Your task to perform on an android device: find snoozed emails in the gmail app Image 0: 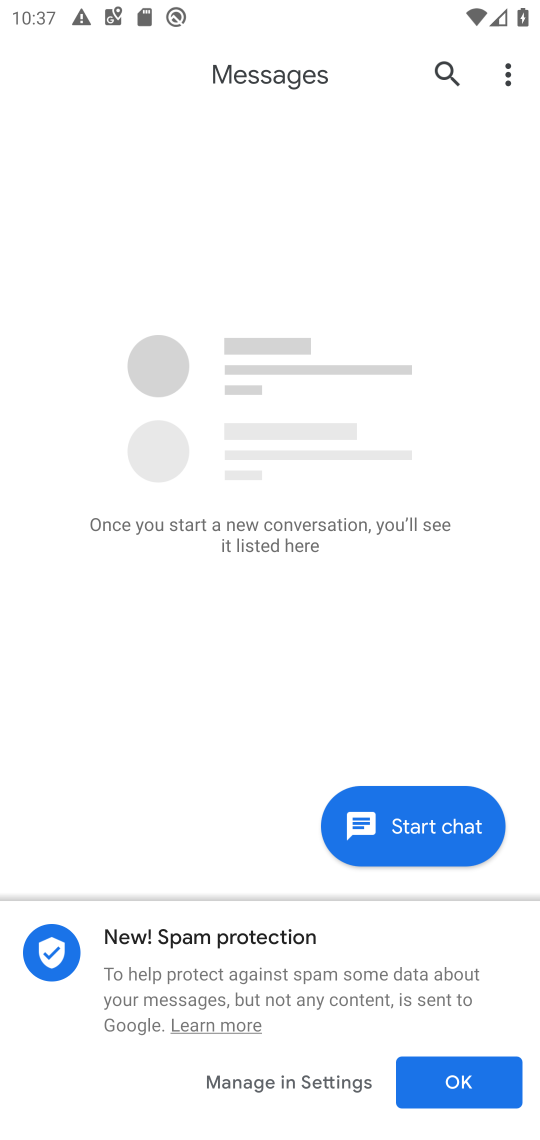
Step 0: drag from (231, 1016) to (245, 546)
Your task to perform on an android device: find snoozed emails in the gmail app Image 1: 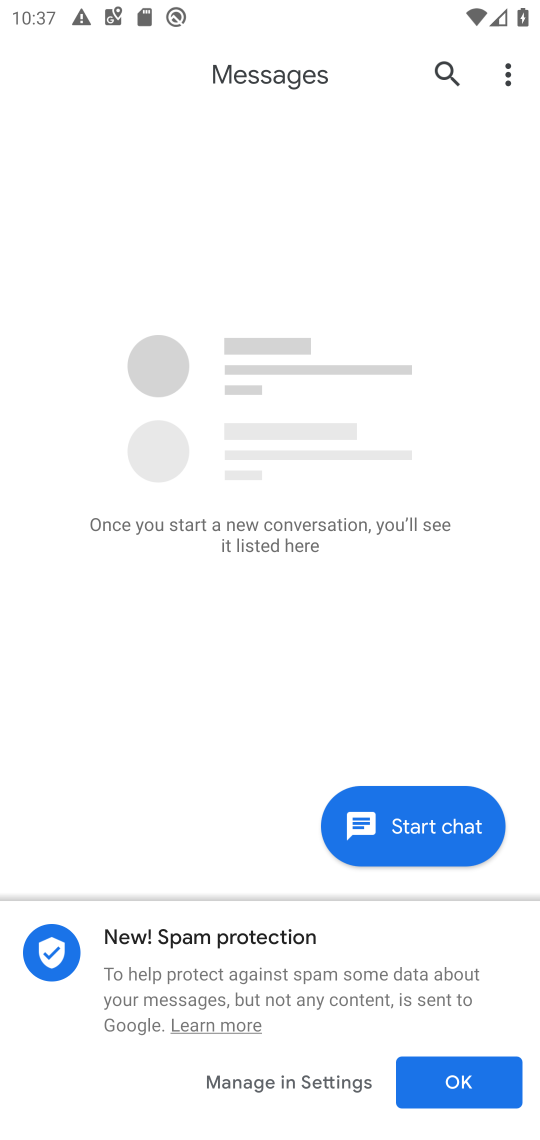
Step 1: press back button
Your task to perform on an android device: find snoozed emails in the gmail app Image 2: 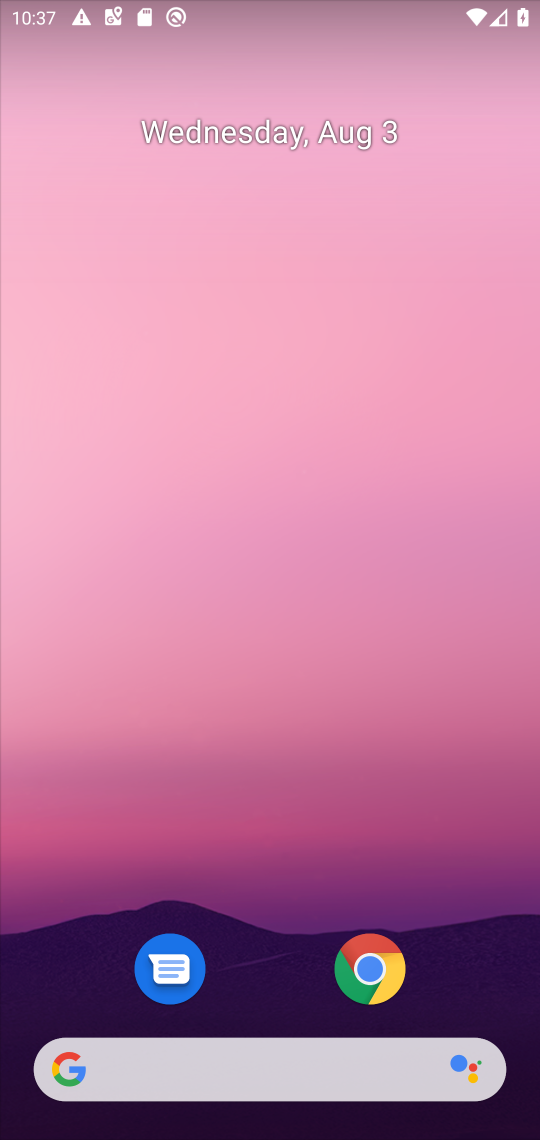
Step 2: drag from (288, 1030) to (186, 18)
Your task to perform on an android device: find snoozed emails in the gmail app Image 3: 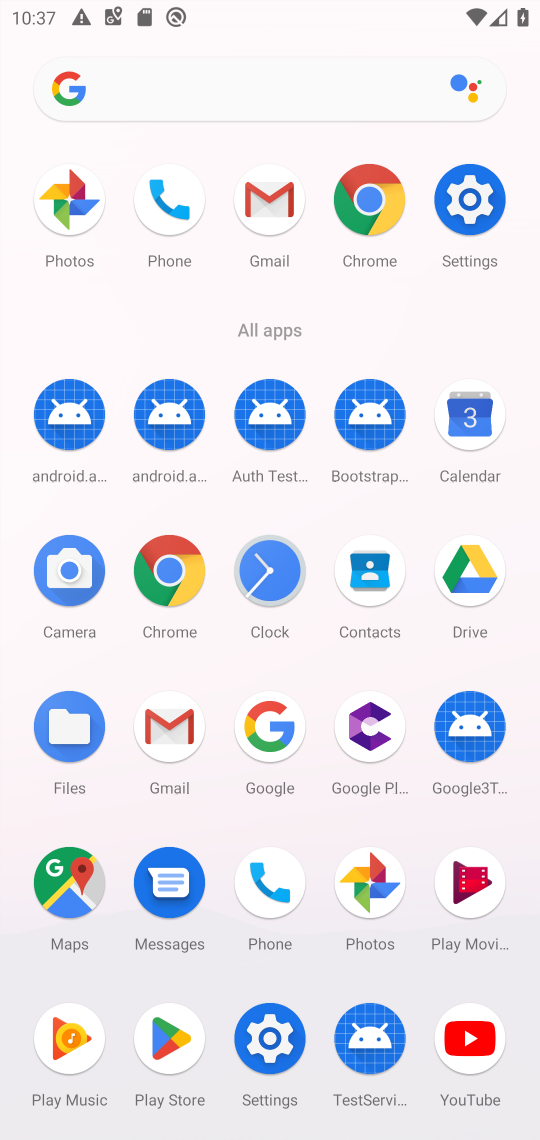
Step 3: click (167, 753)
Your task to perform on an android device: find snoozed emails in the gmail app Image 4: 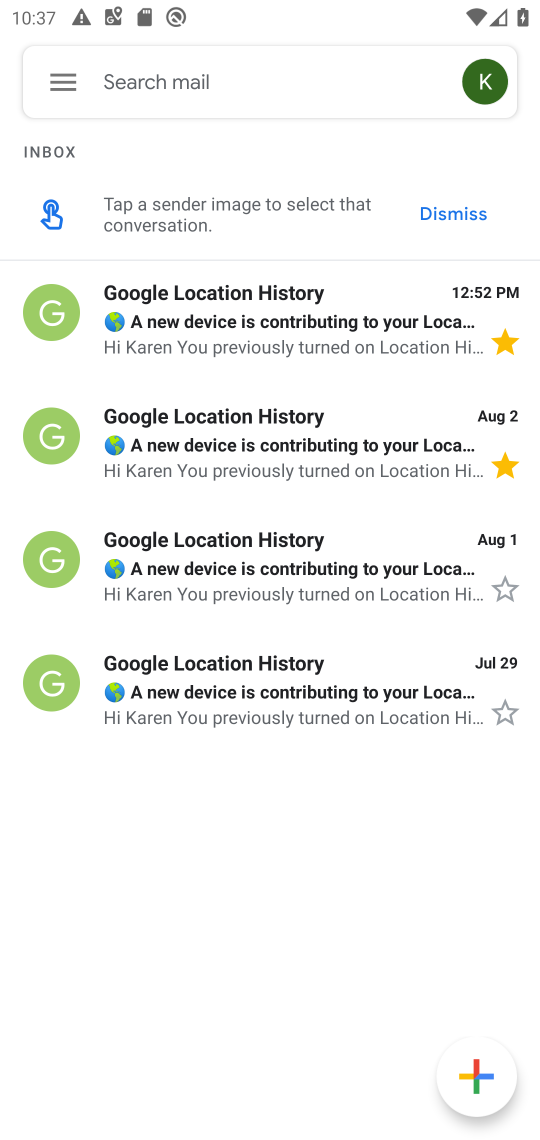
Step 4: click (51, 88)
Your task to perform on an android device: find snoozed emails in the gmail app Image 5: 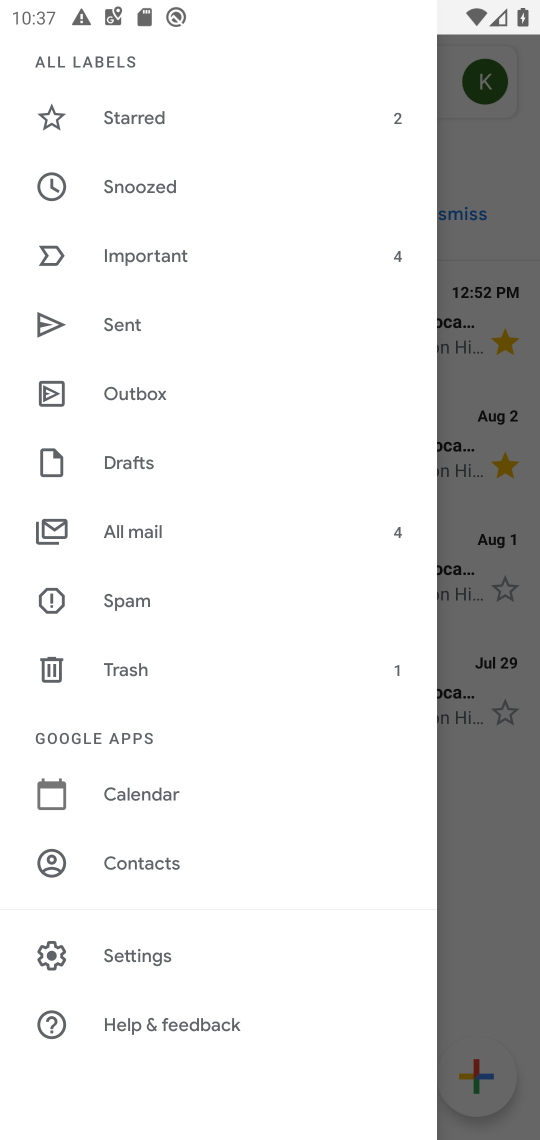
Step 5: click (143, 198)
Your task to perform on an android device: find snoozed emails in the gmail app Image 6: 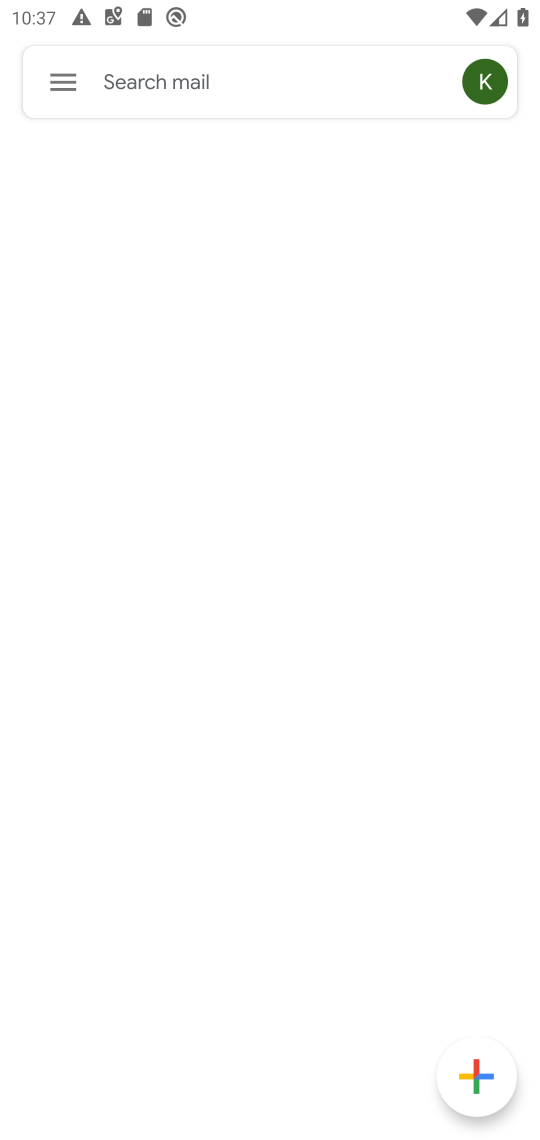
Step 6: task complete